Your task to perform on an android device: turn on showing notifications on the lock screen Image 0: 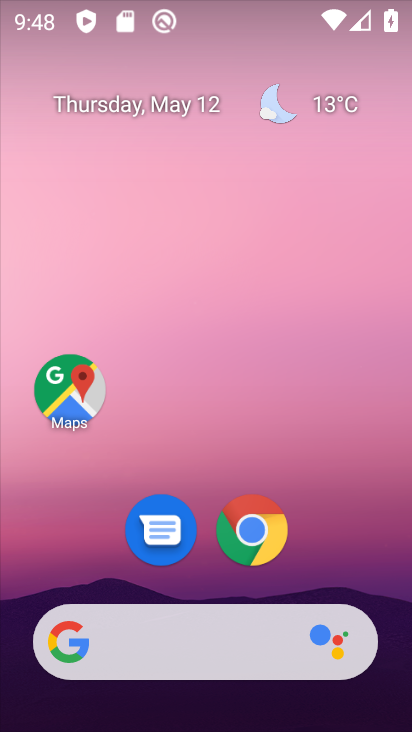
Step 0: drag from (322, 482) to (324, 212)
Your task to perform on an android device: turn on showing notifications on the lock screen Image 1: 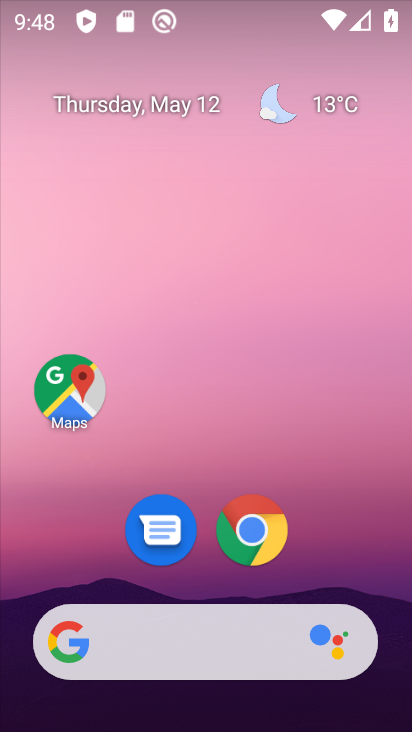
Step 1: drag from (313, 255) to (266, 10)
Your task to perform on an android device: turn on showing notifications on the lock screen Image 2: 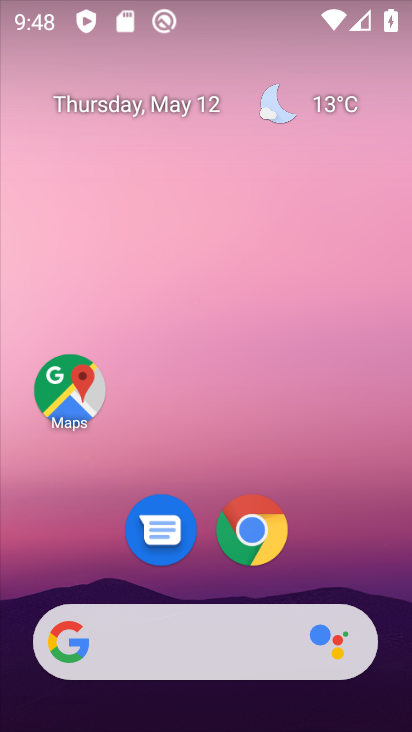
Step 2: drag from (317, 561) to (315, 35)
Your task to perform on an android device: turn on showing notifications on the lock screen Image 3: 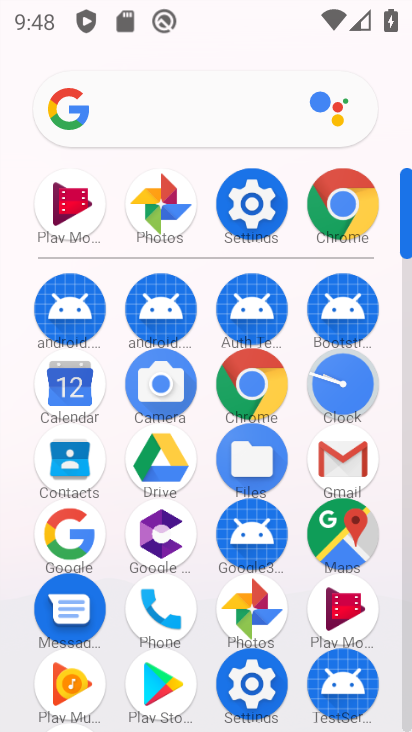
Step 3: click (268, 205)
Your task to perform on an android device: turn on showing notifications on the lock screen Image 4: 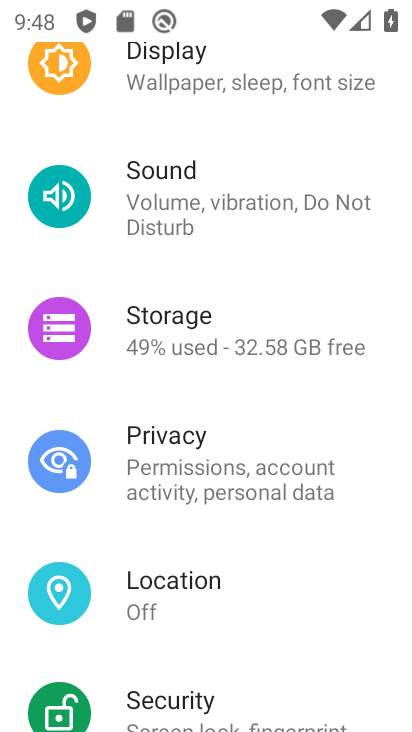
Step 4: drag from (280, 127) to (225, 508)
Your task to perform on an android device: turn on showing notifications on the lock screen Image 5: 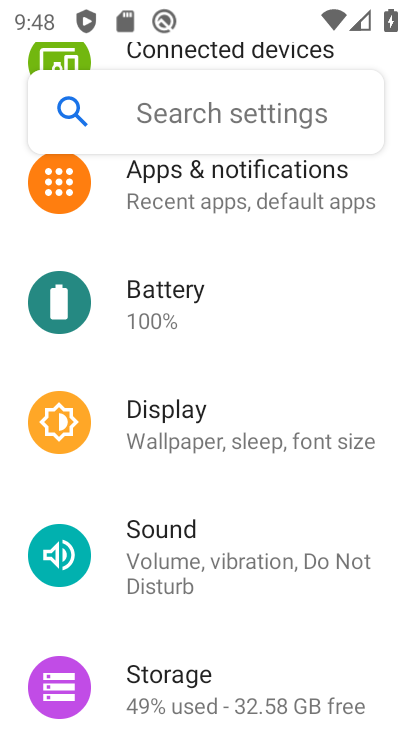
Step 5: click (277, 178)
Your task to perform on an android device: turn on showing notifications on the lock screen Image 6: 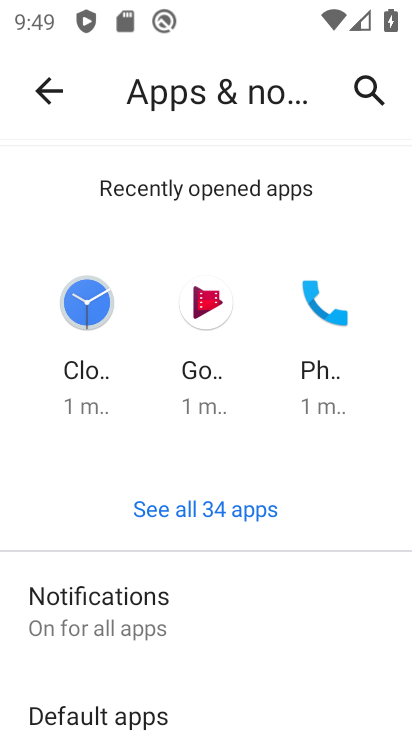
Step 6: drag from (272, 677) to (245, 266)
Your task to perform on an android device: turn on showing notifications on the lock screen Image 7: 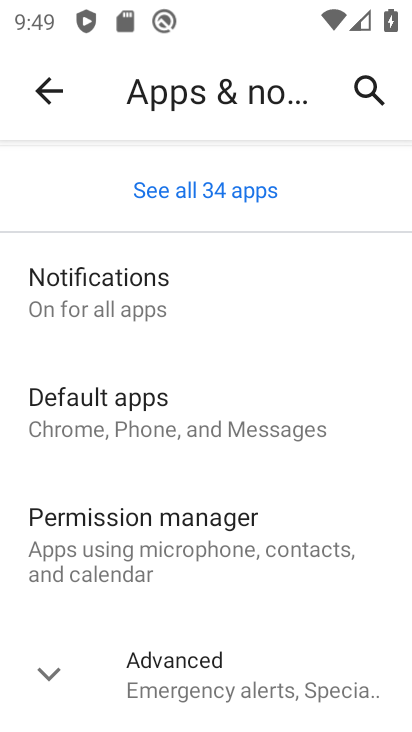
Step 7: drag from (261, 220) to (230, 727)
Your task to perform on an android device: turn on showing notifications on the lock screen Image 8: 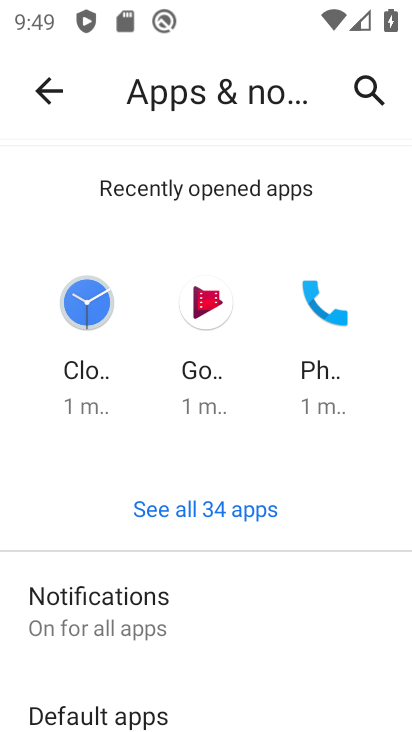
Step 8: press back button
Your task to perform on an android device: turn on showing notifications on the lock screen Image 9: 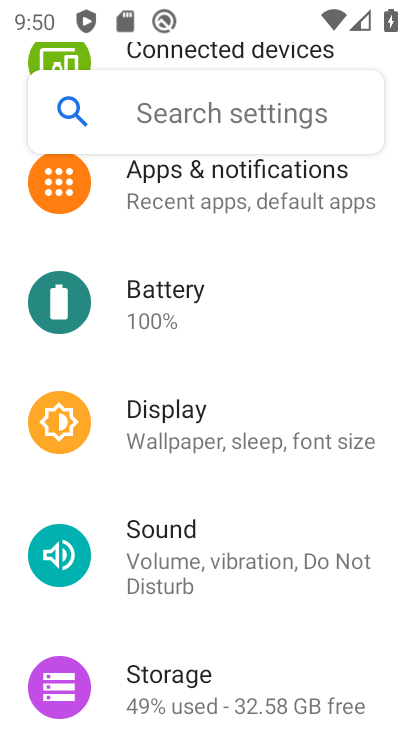
Step 9: click (197, 194)
Your task to perform on an android device: turn on showing notifications on the lock screen Image 10: 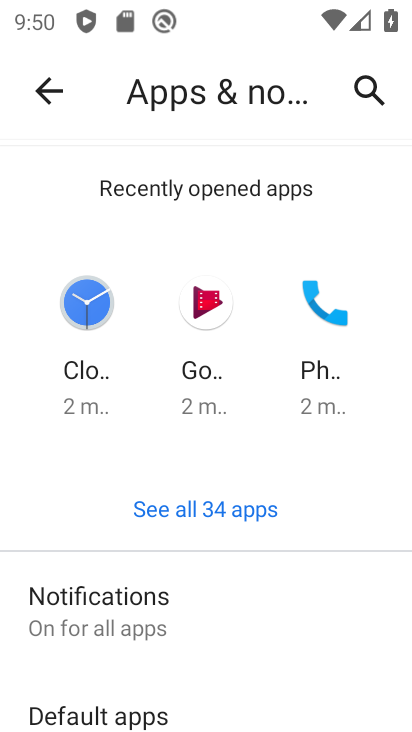
Step 10: click (136, 613)
Your task to perform on an android device: turn on showing notifications on the lock screen Image 11: 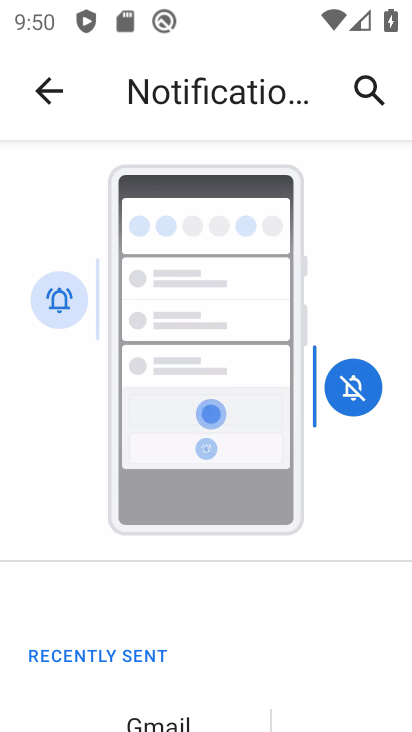
Step 11: drag from (193, 661) to (147, 135)
Your task to perform on an android device: turn on showing notifications on the lock screen Image 12: 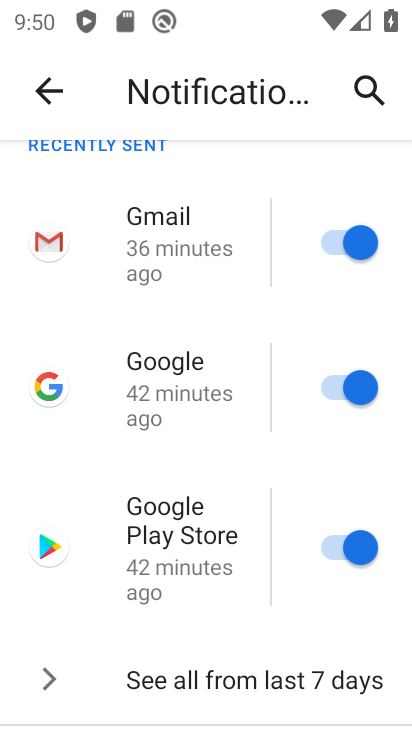
Step 12: drag from (192, 504) to (178, 17)
Your task to perform on an android device: turn on showing notifications on the lock screen Image 13: 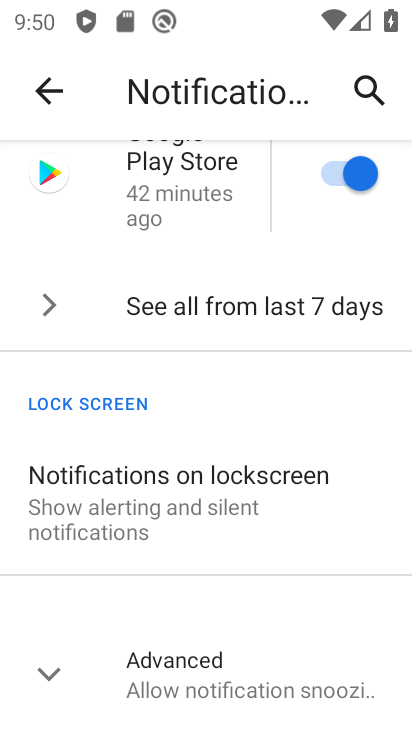
Step 13: click (178, 479)
Your task to perform on an android device: turn on showing notifications on the lock screen Image 14: 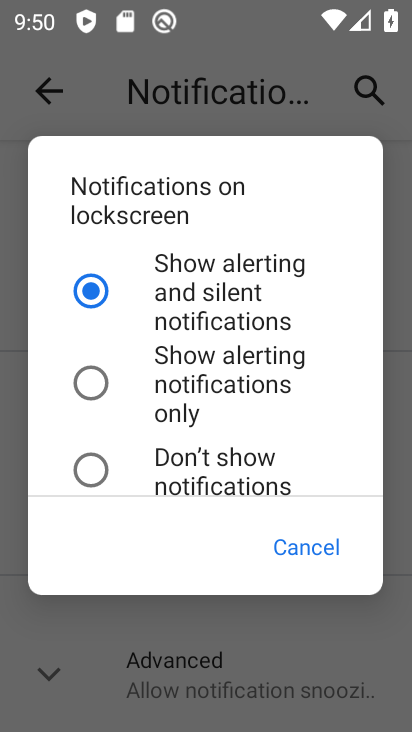
Step 14: click (278, 276)
Your task to perform on an android device: turn on showing notifications on the lock screen Image 15: 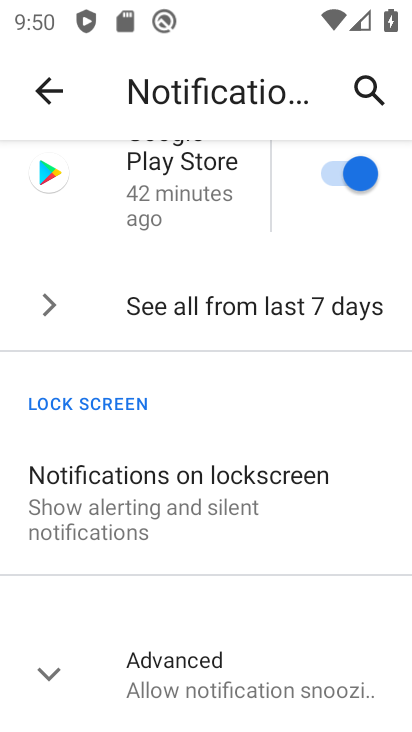
Step 15: task complete